Your task to perform on an android device: set the stopwatch Image 0: 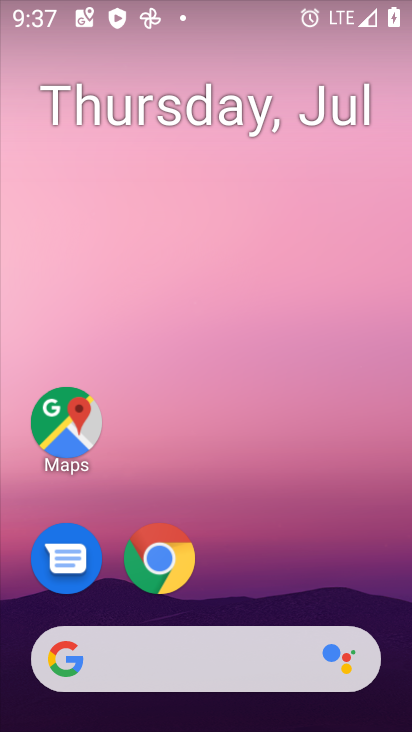
Step 0: drag from (360, 539) to (380, 187)
Your task to perform on an android device: set the stopwatch Image 1: 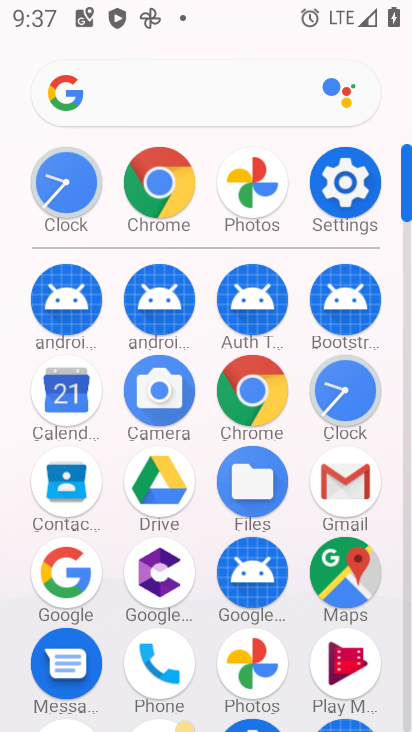
Step 1: click (357, 398)
Your task to perform on an android device: set the stopwatch Image 2: 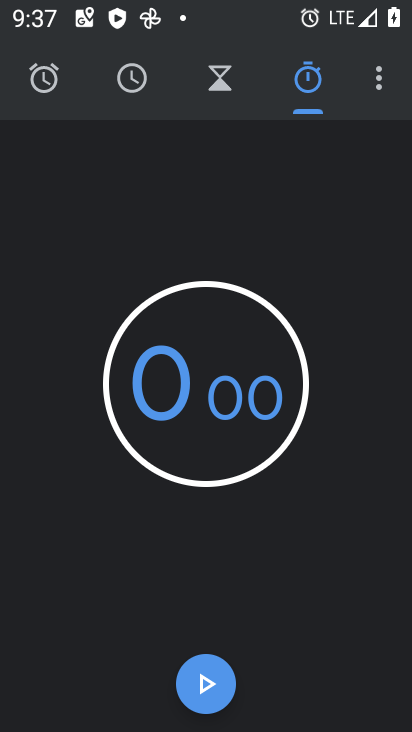
Step 2: task complete